Your task to perform on an android device: Open calendar and show me the first week of next month Image 0: 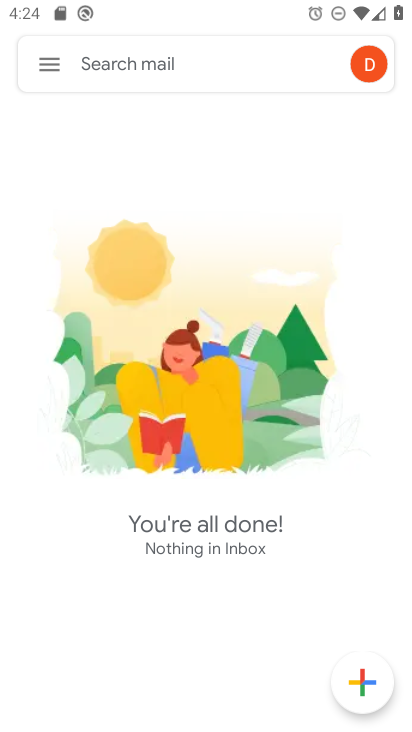
Step 0: press home button
Your task to perform on an android device: Open calendar and show me the first week of next month Image 1: 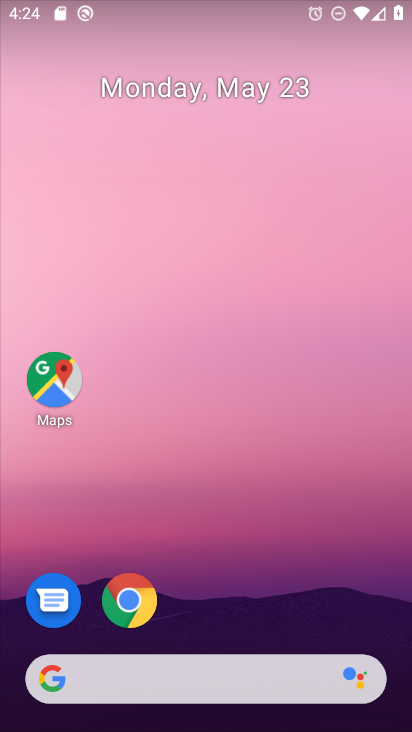
Step 1: drag from (282, 637) to (297, 0)
Your task to perform on an android device: Open calendar and show me the first week of next month Image 2: 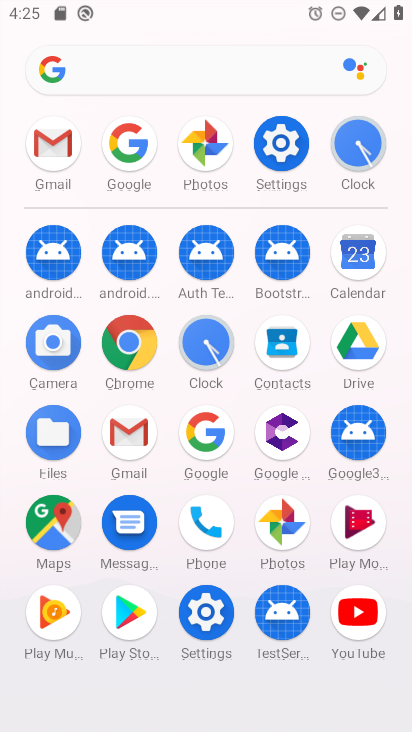
Step 2: click (356, 273)
Your task to perform on an android device: Open calendar and show me the first week of next month Image 3: 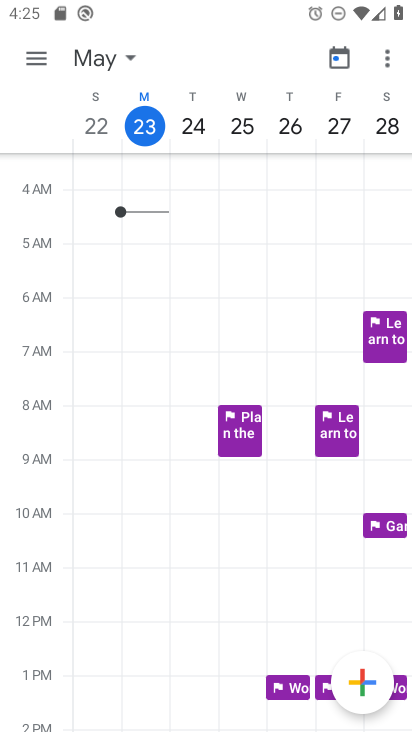
Step 3: click (126, 58)
Your task to perform on an android device: Open calendar and show me the first week of next month Image 4: 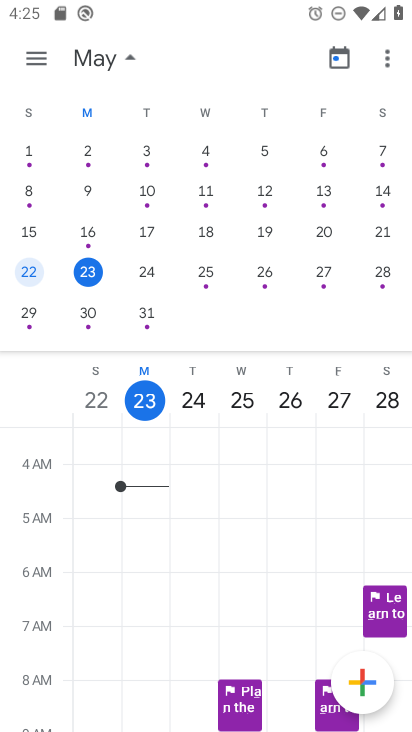
Step 4: drag from (370, 256) to (11, 290)
Your task to perform on an android device: Open calendar and show me the first week of next month Image 5: 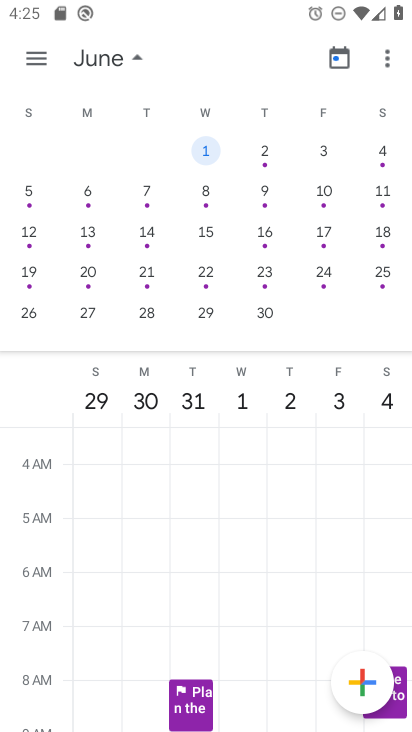
Step 5: click (37, 59)
Your task to perform on an android device: Open calendar and show me the first week of next month Image 6: 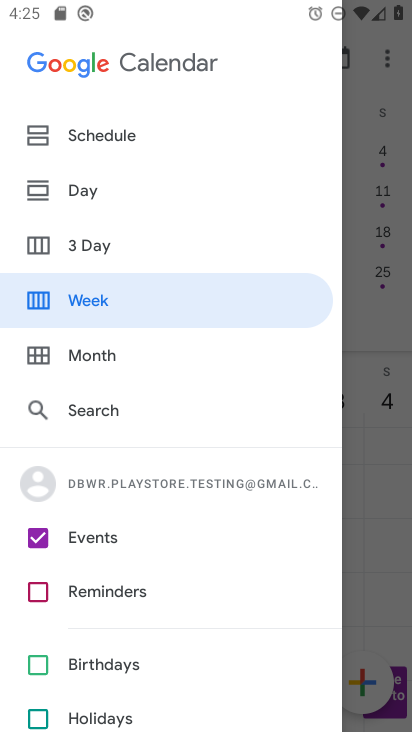
Step 6: click (93, 312)
Your task to perform on an android device: Open calendar and show me the first week of next month Image 7: 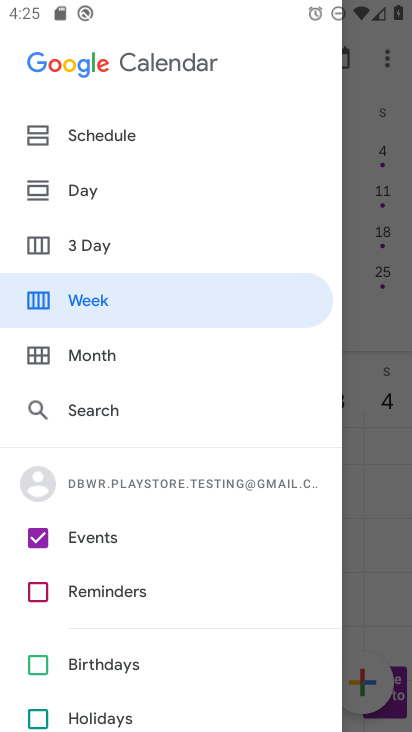
Step 7: click (96, 309)
Your task to perform on an android device: Open calendar and show me the first week of next month Image 8: 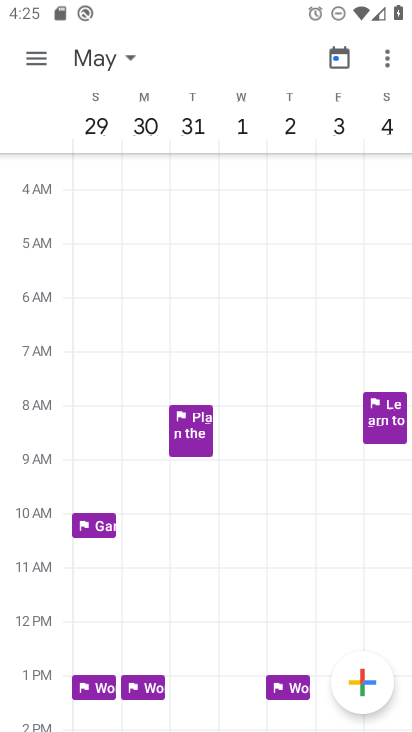
Step 8: task complete